Your task to perform on an android device: install app "PUBG MOBILE" Image 0: 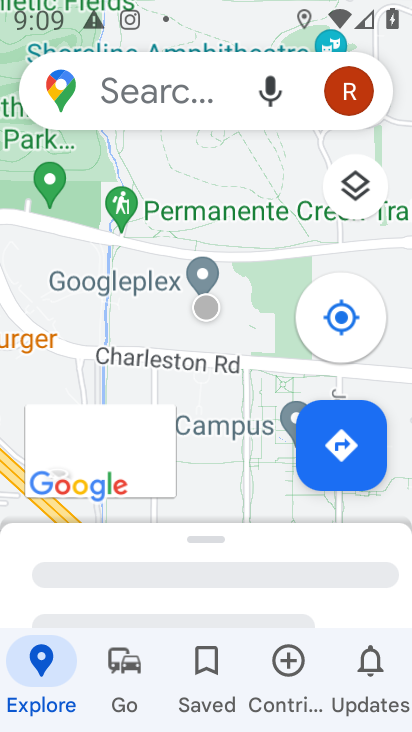
Step 0: press home button
Your task to perform on an android device: install app "PUBG MOBILE" Image 1: 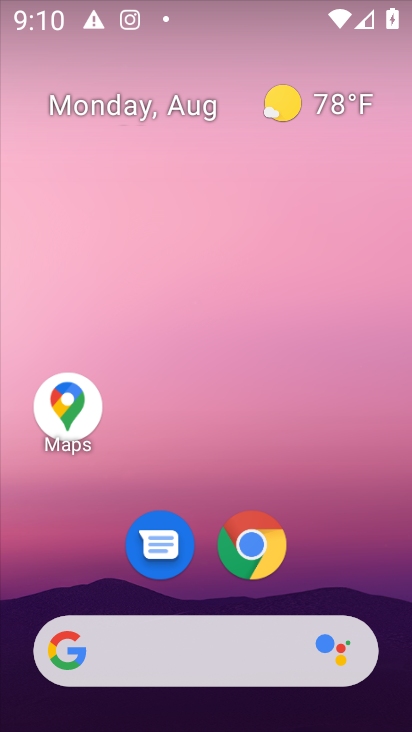
Step 1: drag from (356, 593) to (349, 113)
Your task to perform on an android device: install app "PUBG MOBILE" Image 2: 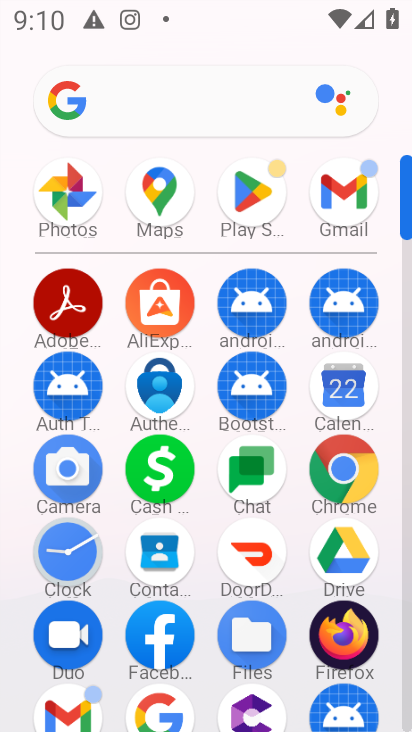
Step 2: click (257, 197)
Your task to perform on an android device: install app "PUBG MOBILE" Image 3: 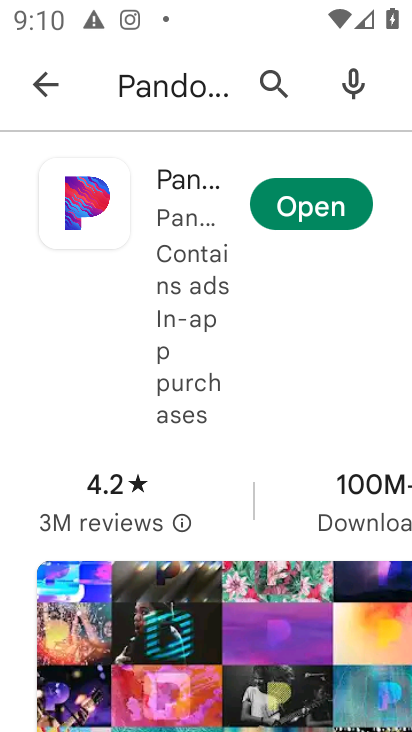
Step 3: press back button
Your task to perform on an android device: install app "PUBG MOBILE" Image 4: 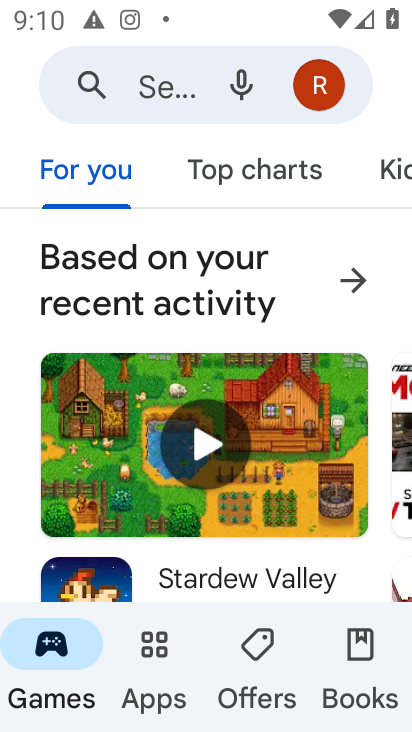
Step 4: click (152, 81)
Your task to perform on an android device: install app "PUBG MOBILE" Image 5: 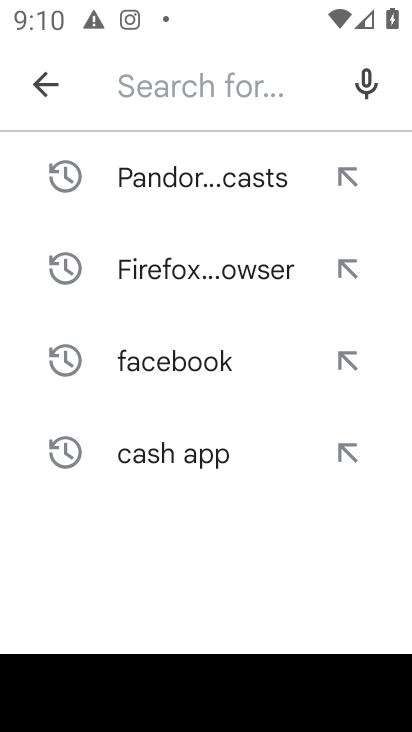
Step 5: press enter
Your task to perform on an android device: install app "PUBG MOBILE" Image 6: 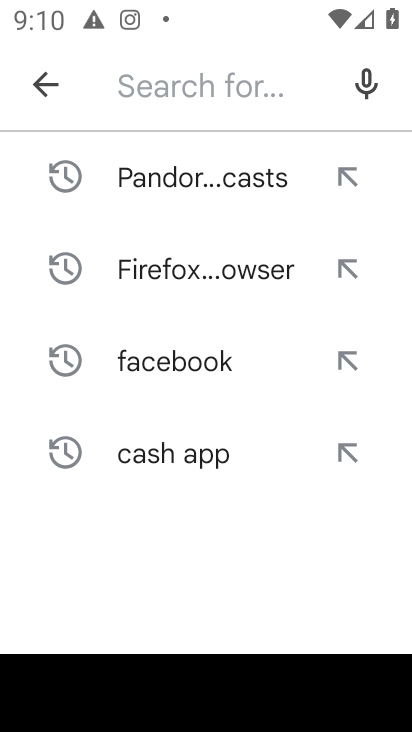
Step 6: type "PUBG MOBILE"
Your task to perform on an android device: install app "PUBG MOBILE" Image 7: 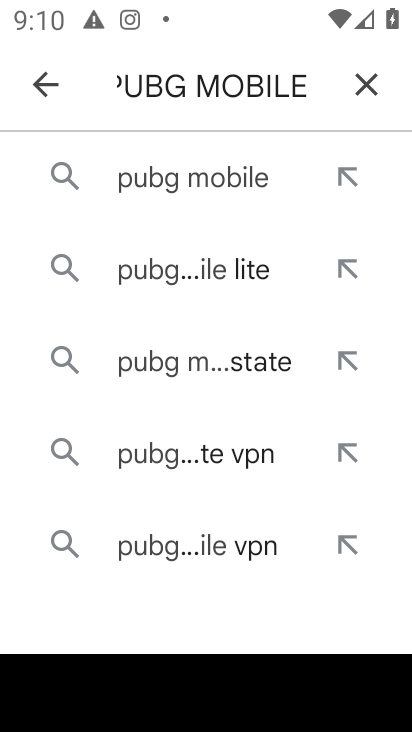
Step 7: click (230, 181)
Your task to perform on an android device: install app "PUBG MOBILE" Image 8: 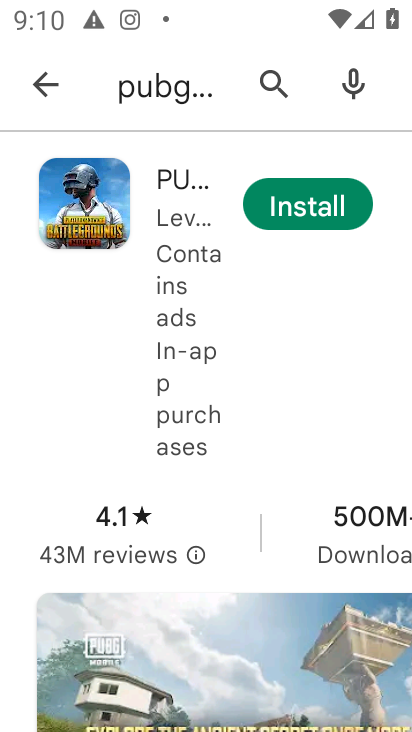
Step 8: click (288, 201)
Your task to perform on an android device: install app "PUBG MOBILE" Image 9: 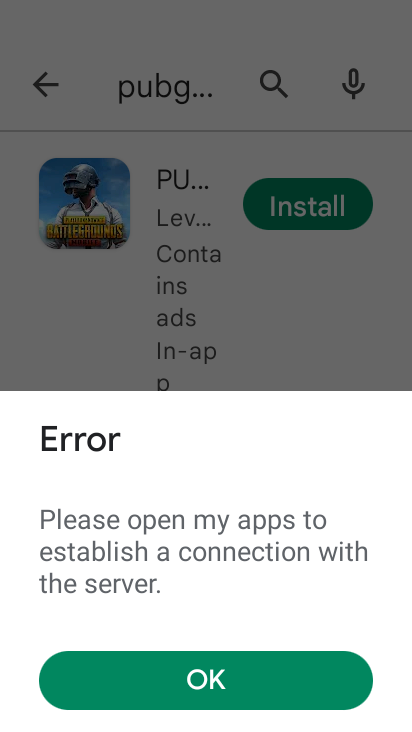
Step 9: task complete